Your task to perform on an android device: turn on showing notifications on the lock screen Image 0: 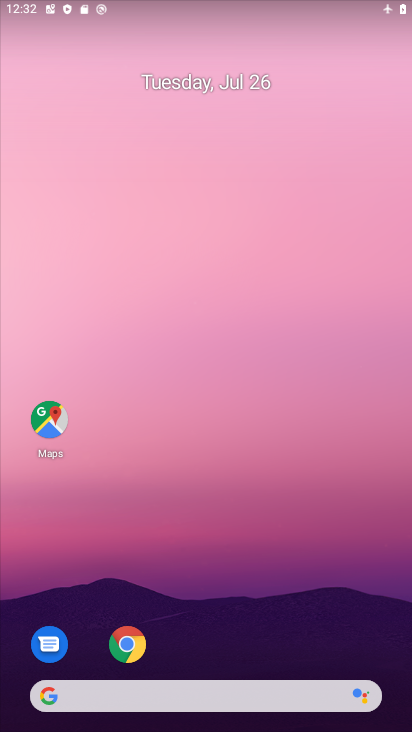
Step 0: drag from (233, 629) to (225, 154)
Your task to perform on an android device: turn on showing notifications on the lock screen Image 1: 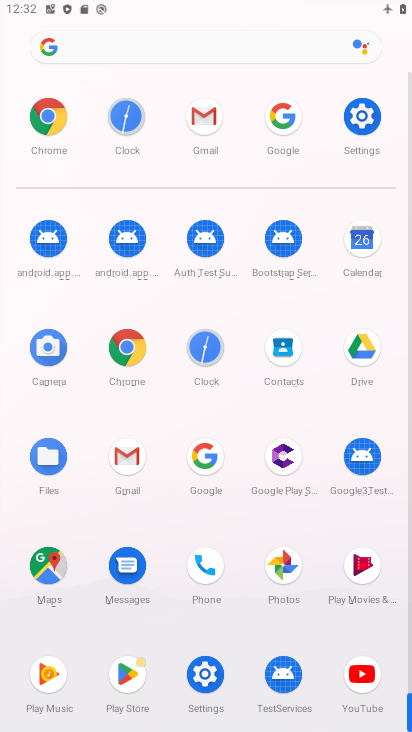
Step 1: click (348, 145)
Your task to perform on an android device: turn on showing notifications on the lock screen Image 2: 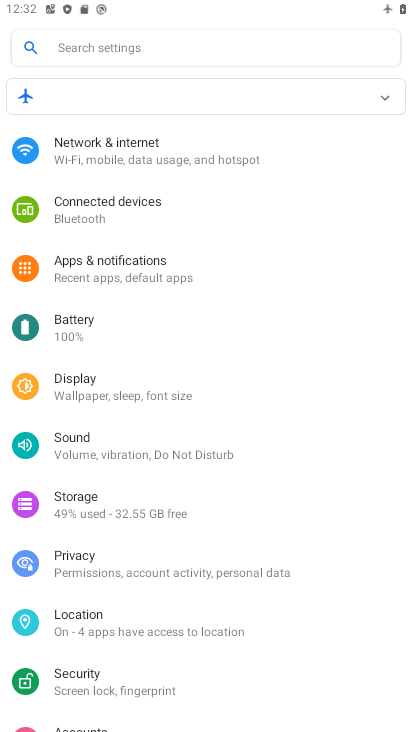
Step 2: click (156, 274)
Your task to perform on an android device: turn on showing notifications on the lock screen Image 3: 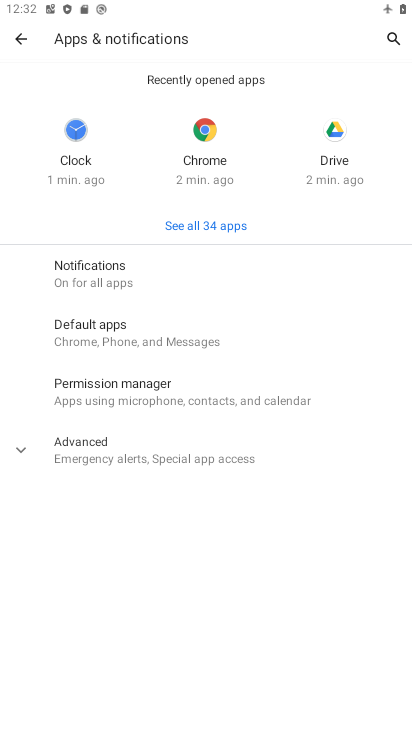
Step 3: click (129, 274)
Your task to perform on an android device: turn on showing notifications on the lock screen Image 4: 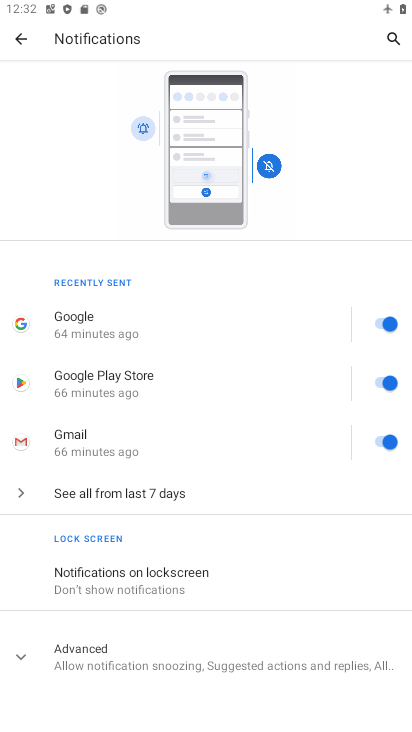
Step 4: drag from (115, 625) to (165, 376)
Your task to perform on an android device: turn on showing notifications on the lock screen Image 5: 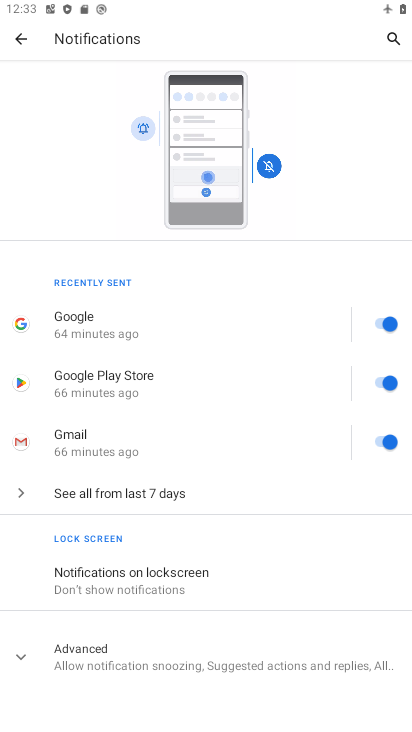
Step 5: drag from (103, 636) to (132, 451)
Your task to perform on an android device: turn on showing notifications on the lock screen Image 6: 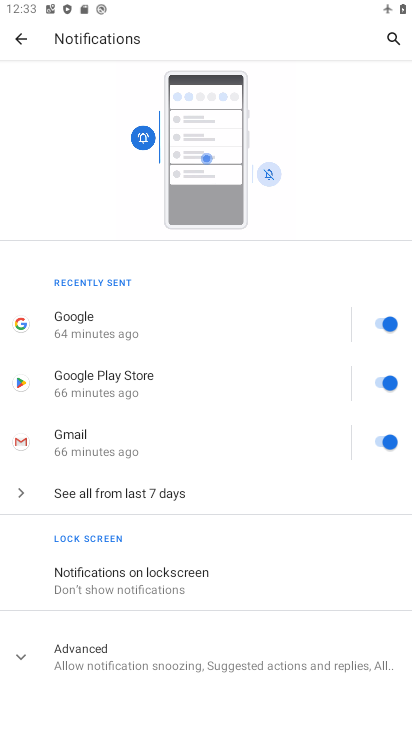
Step 6: click (95, 582)
Your task to perform on an android device: turn on showing notifications on the lock screen Image 7: 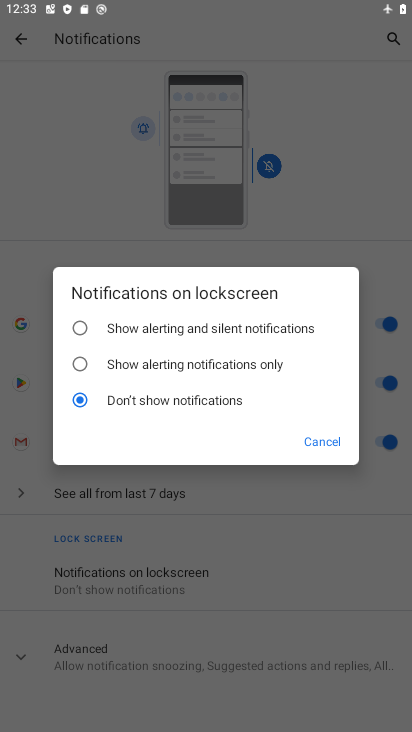
Step 7: click (77, 329)
Your task to perform on an android device: turn on showing notifications on the lock screen Image 8: 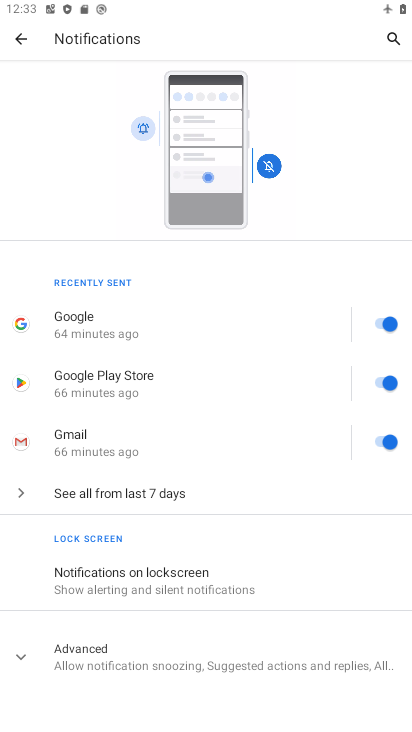
Step 8: task complete